Your task to perform on an android device: change the clock display to analog Image 0: 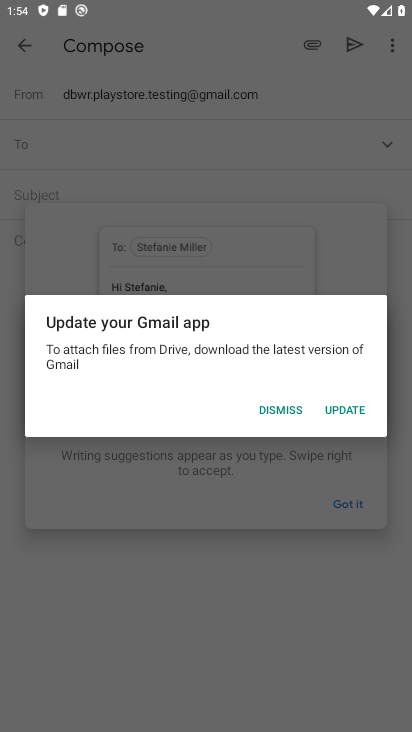
Step 0: press home button
Your task to perform on an android device: change the clock display to analog Image 1: 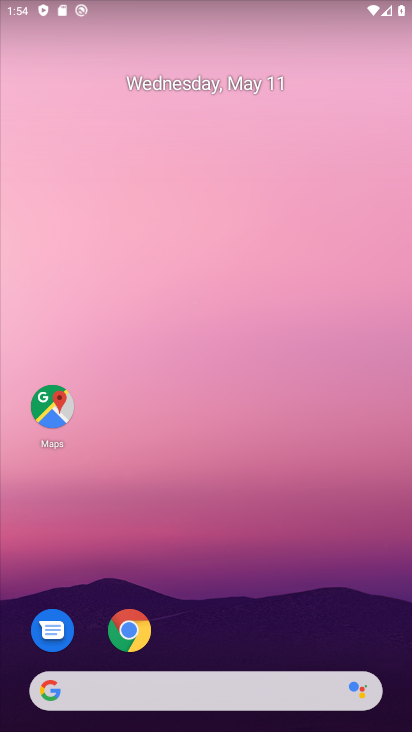
Step 1: drag from (213, 725) to (225, 216)
Your task to perform on an android device: change the clock display to analog Image 2: 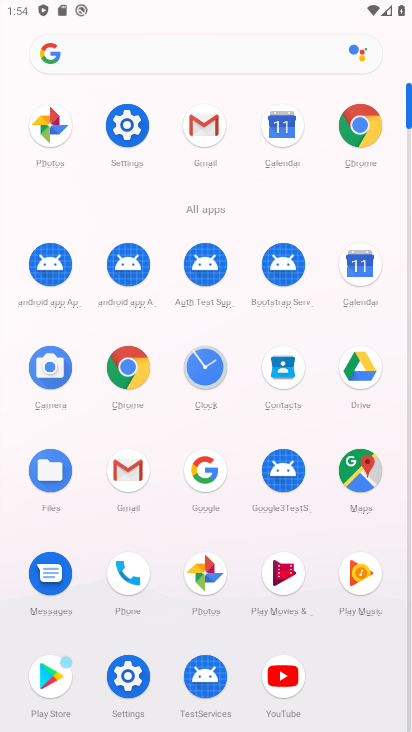
Step 2: click (204, 377)
Your task to perform on an android device: change the clock display to analog Image 3: 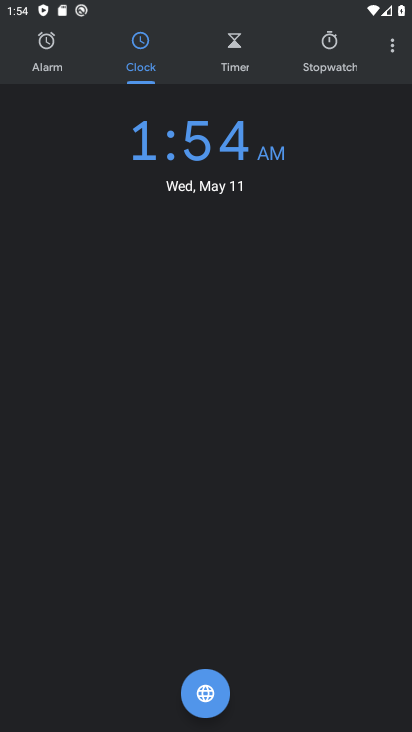
Step 3: click (395, 47)
Your task to perform on an android device: change the clock display to analog Image 4: 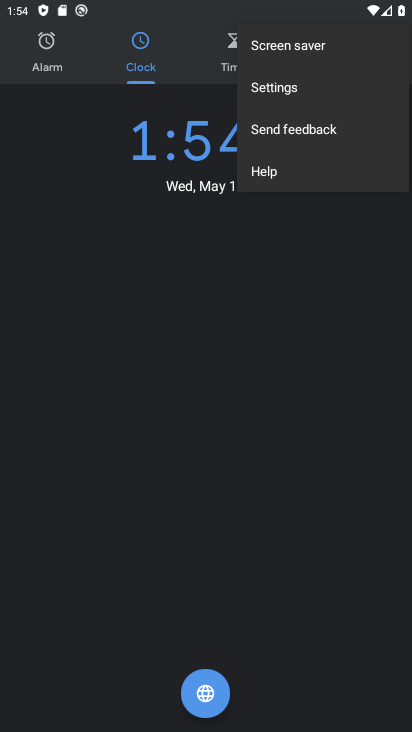
Step 4: click (263, 86)
Your task to perform on an android device: change the clock display to analog Image 5: 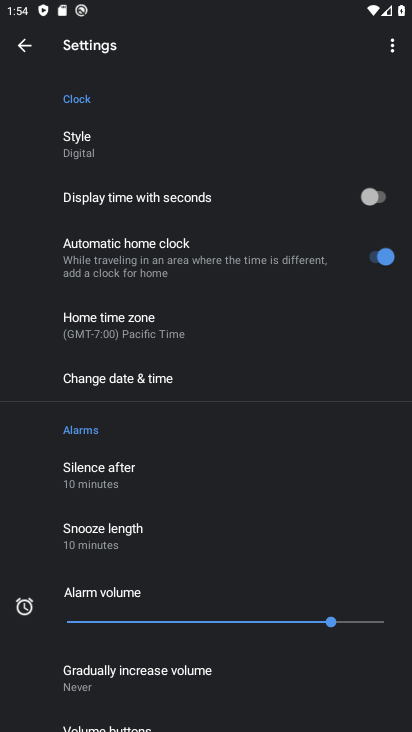
Step 5: click (83, 146)
Your task to perform on an android device: change the clock display to analog Image 6: 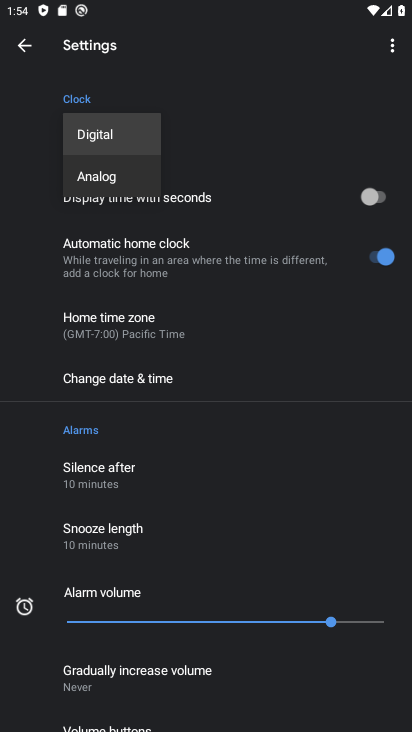
Step 6: click (95, 176)
Your task to perform on an android device: change the clock display to analog Image 7: 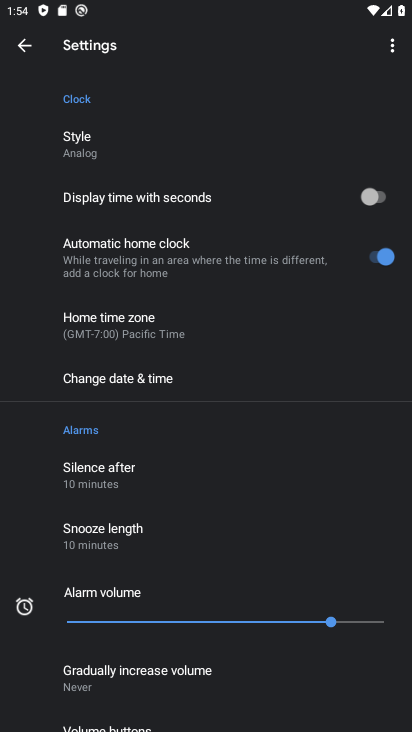
Step 7: task complete